Your task to perform on an android device: Open calendar and show me the first week of next month Image 0: 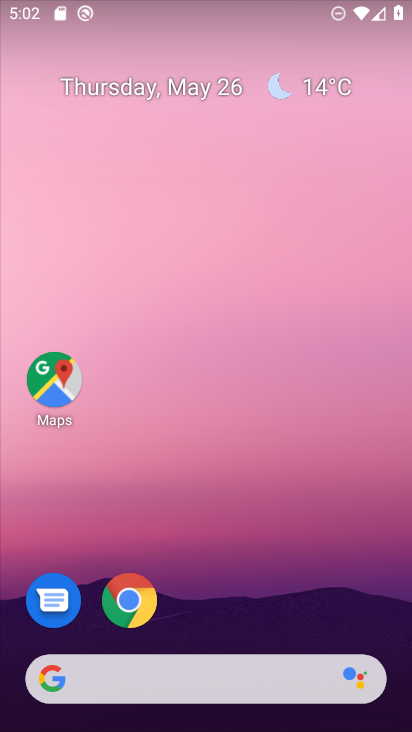
Step 0: click (149, 88)
Your task to perform on an android device: Open calendar and show me the first week of next month Image 1: 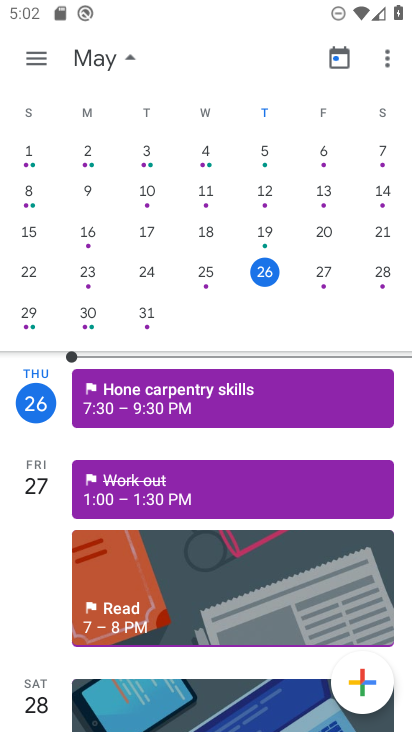
Step 1: task complete